Your task to perform on an android device: turn pop-ups on in chrome Image 0: 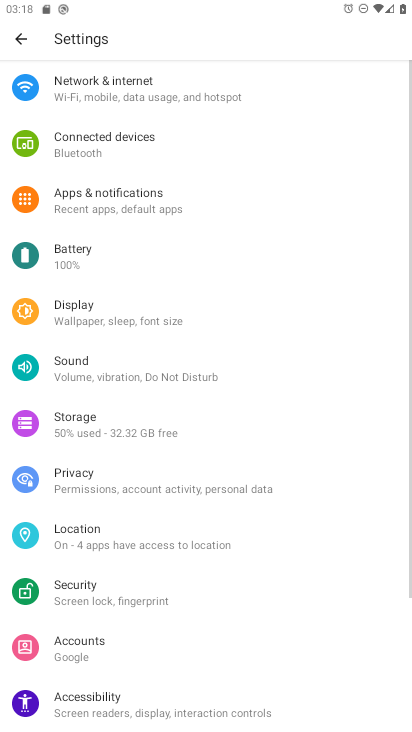
Step 0: press home button
Your task to perform on an android device: turn pop-ups on in chrome Image 1: 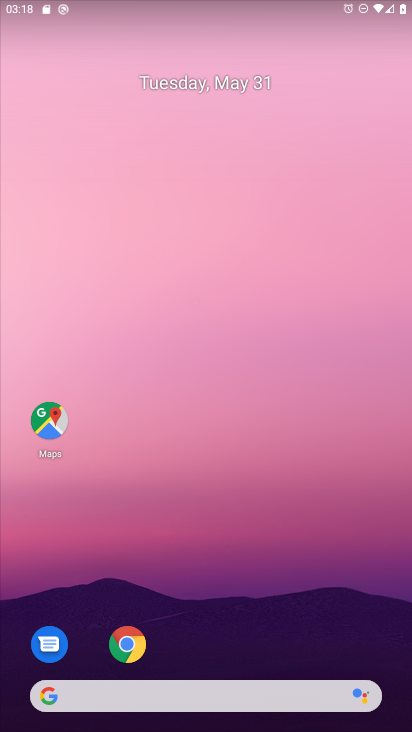
Step 1: click (123, 644)
Your task to perform on an android device: turn pop-ups on in chrome Image 2: 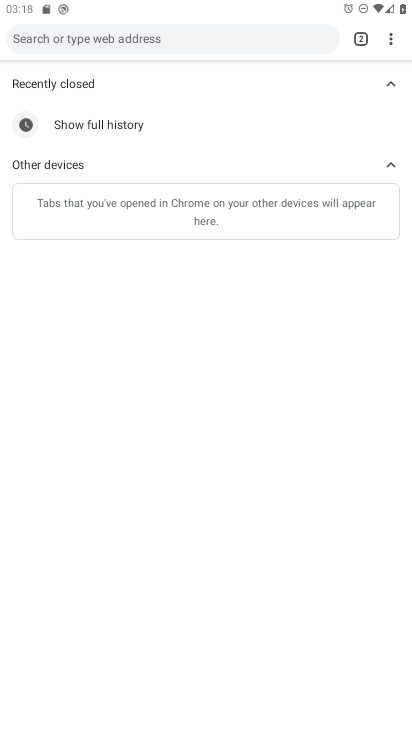
Step 2: drag from (398, 38) to (289, 318)
Your task to perform on an android device: turn pop-ups on in chrome Image 3: 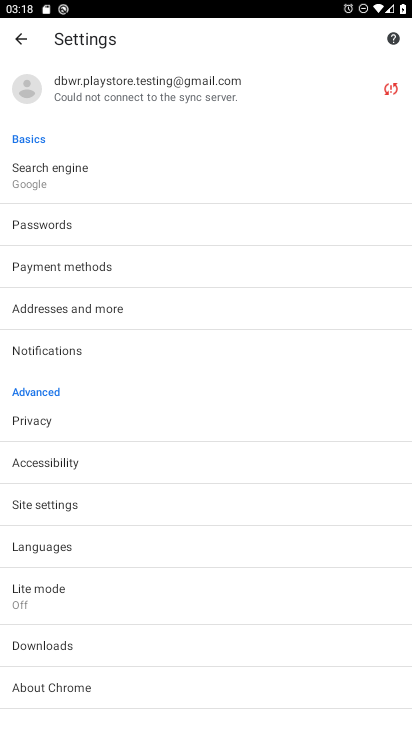
Step 3: click (60, 501)
Your task to perform on an android device: turn pop-ups on in chrome Image 4: 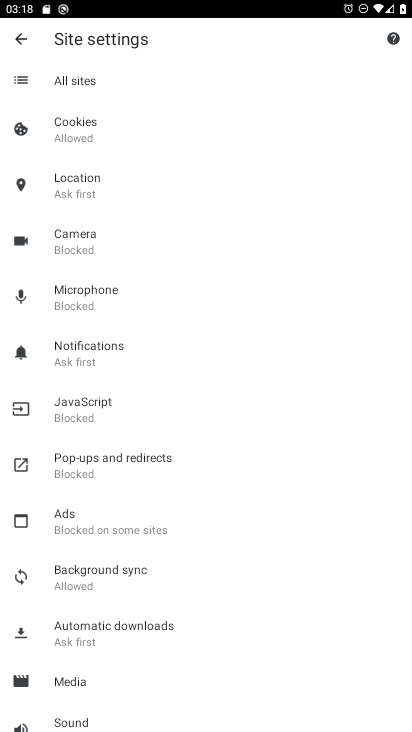
Step 4: click (118, 466)
Your task to perform on an android device: turn pop-ups on in chrome Image 5: 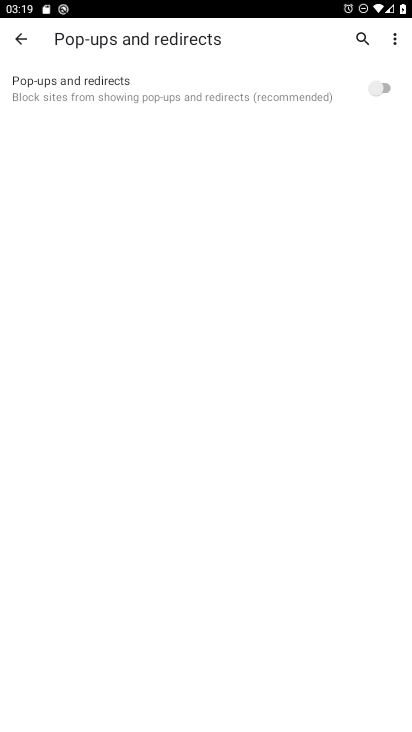
Step 5: click (386, 86)
Your task to perform on an android device: turn pop-ups on in chrome Image 6: 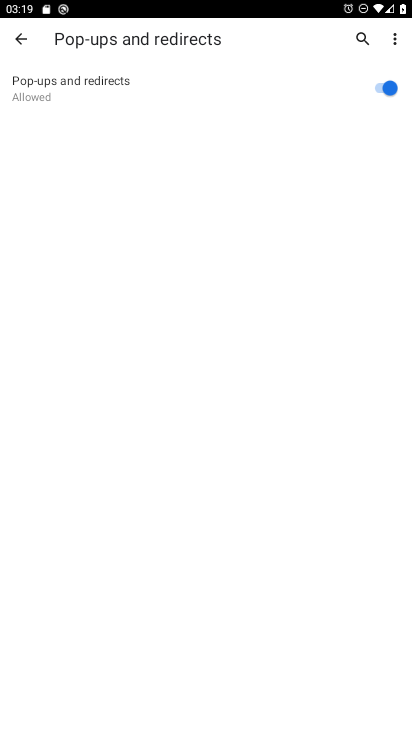
Step 6: task complete